Your task to perform on an android device: check battery use Image 0: 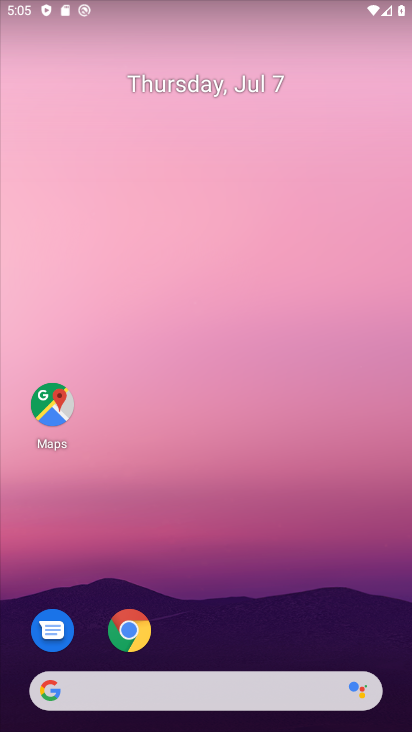
Step 0: click (222, 7)
Your task to perform on an android device: check battery use Image 1: 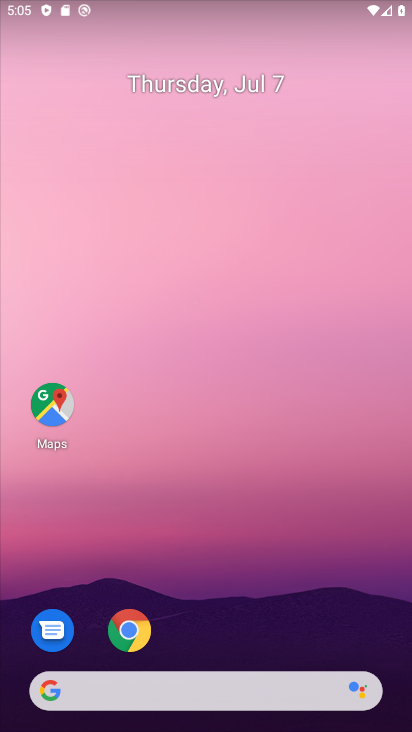
Step 1: drag from (220, 652) to (146, 219)
Your task to perform on an android device: check battery use Image 2: 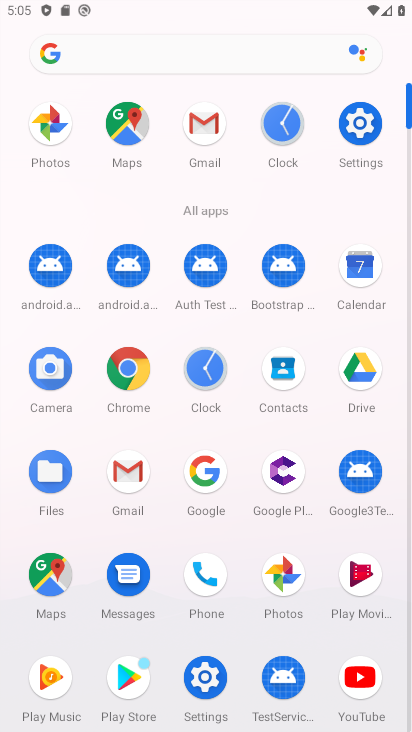
Step 2: click (361, 127)
Your task to perform on an android device: check battery use Image 3: 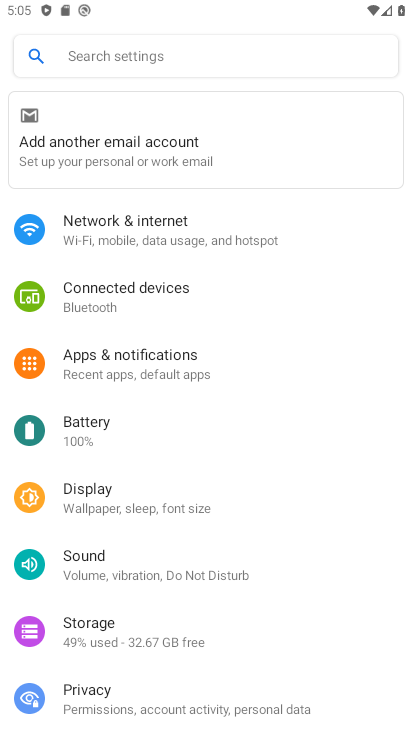
Step 3: click (110, 452)
Your task to perform on an android device: check battery use Image 4: 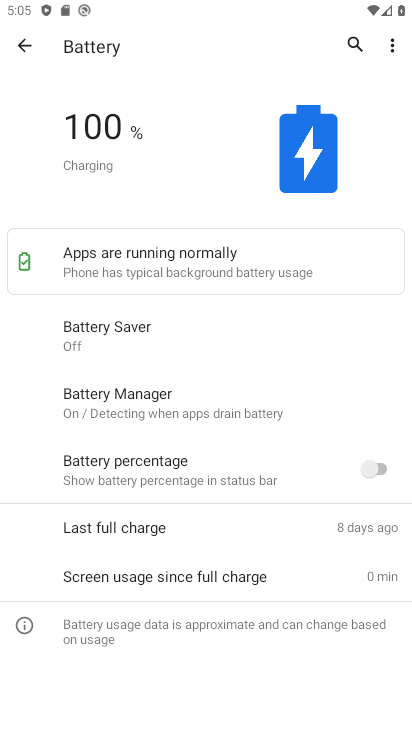
Step 4: task complete